Your task to perform on an android device: Show me popular games on the Play Store Image 0: 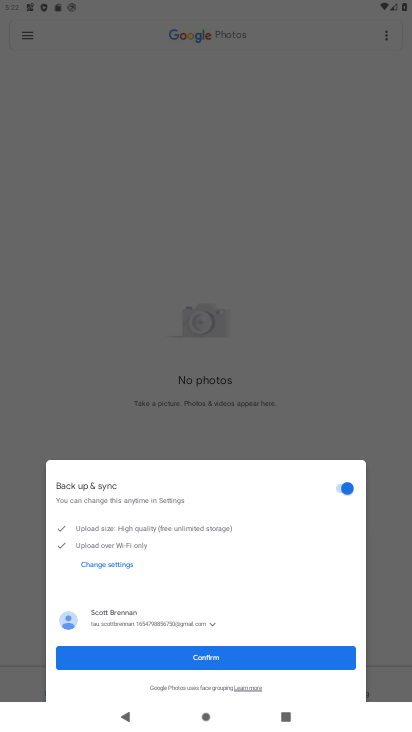
Step 0: press home button
Your task to perform on an android device: Show me popular games on the Play Store Image 1: 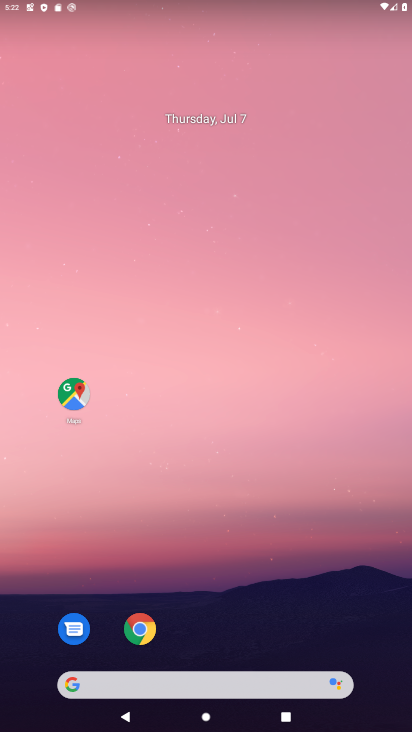
Step 1: drag from (263, 638) to (355, 88)
Your task to perform on an android device: Show me popular games on the Play Store Image 2: 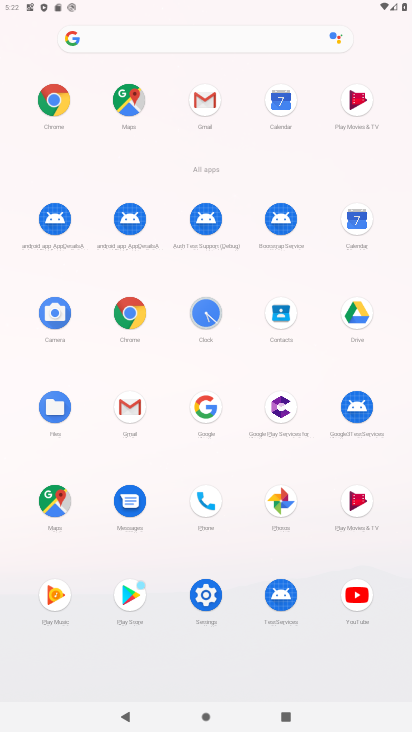
Step 2: click (136, 591)
Your task to perform on an android device: Show me popular games on the Play Store Image 3: 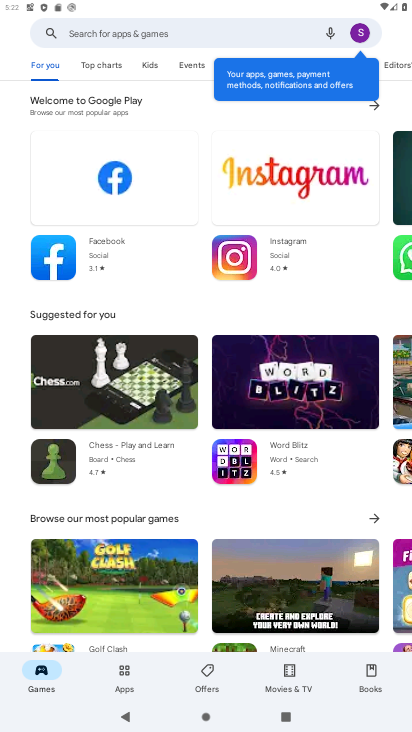
Step 3: click (130, 33)
Your task to perform on an android device: Show me popular games on the Play Store Image 4: 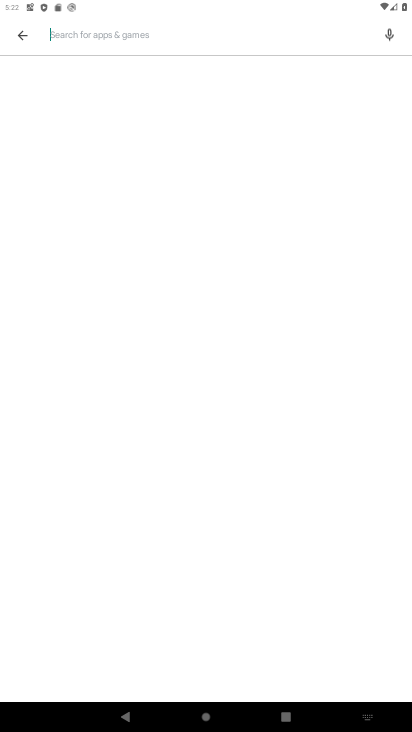
Step 4: type "popular games"
Your task to perform on an android device: Show me popular games on the Play Store Image 5: 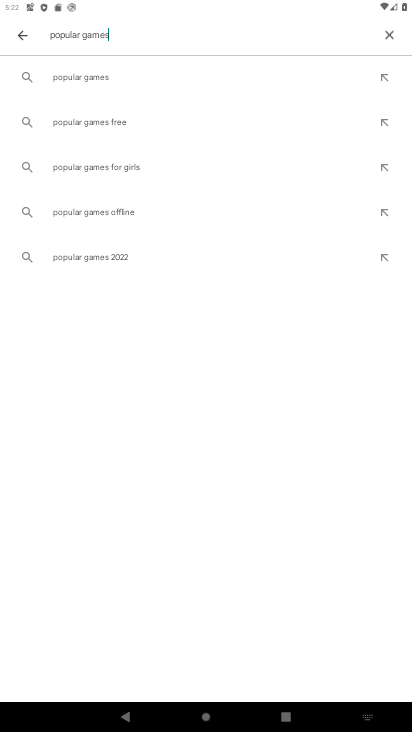
Step 5: click (66, 79)
Your task to perform on an android device: Show me popular games on the Play Store Image 6: 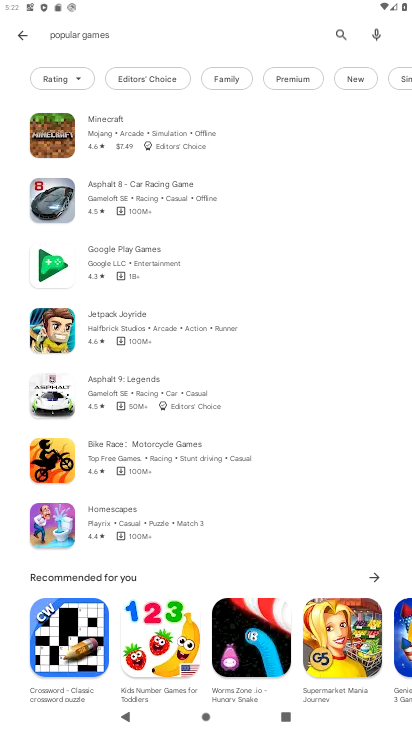
Step 6: task complete